Your task to perform on an android device: empty trash in the gmail app Image 0: 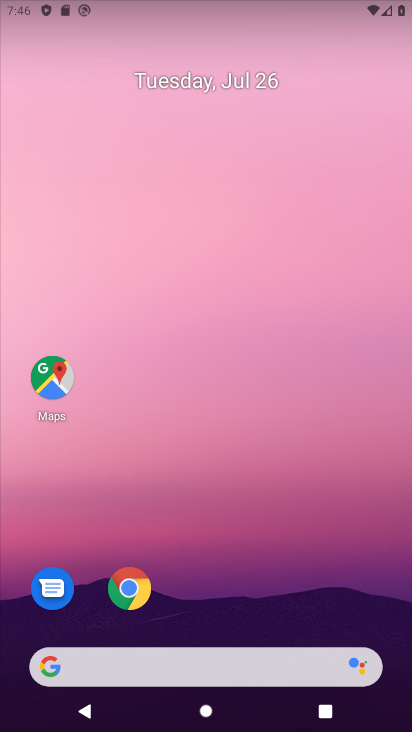
Step 0: drag from (171, 450) to (191, 97)
Your task to perform on an android device: empty trash in the gmail app Image 1: 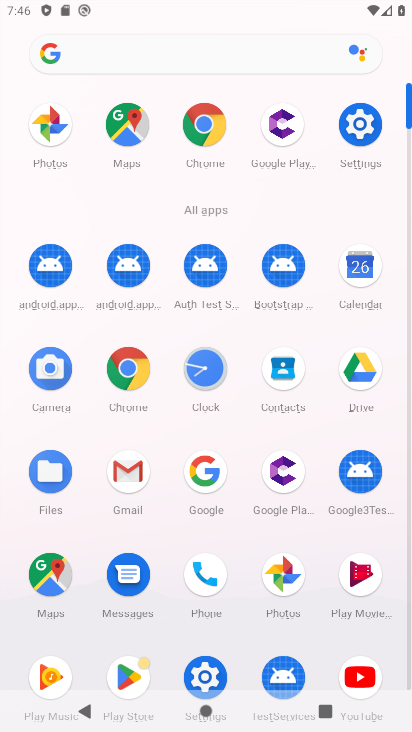
Step 1: click (127, 481)
Your task to perform on an android device: empty trash in the gmail app Image 2: 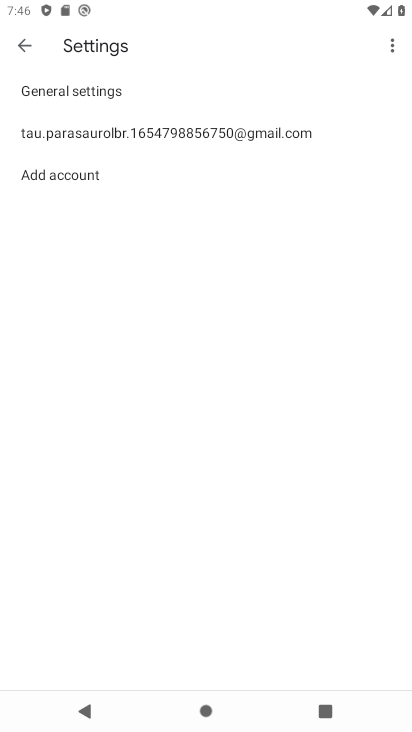
Step 2: click (18, 42)
Your task to perform on an android device: empty trash in the gmail app Image 3: 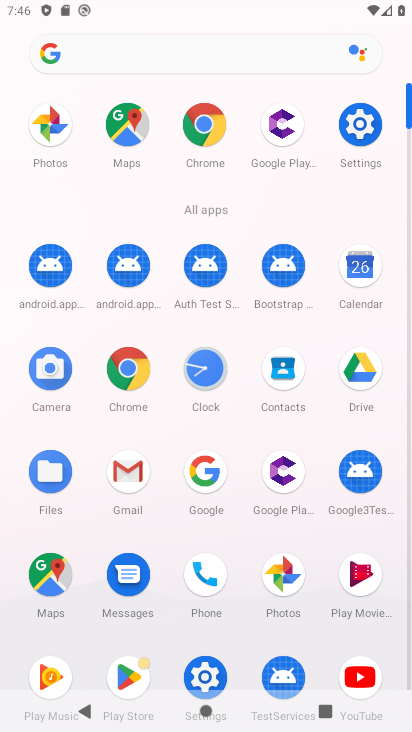
Step 3: click (124, 479)
Your task to perform on an android device: empty trash in the gmail app Image 4: 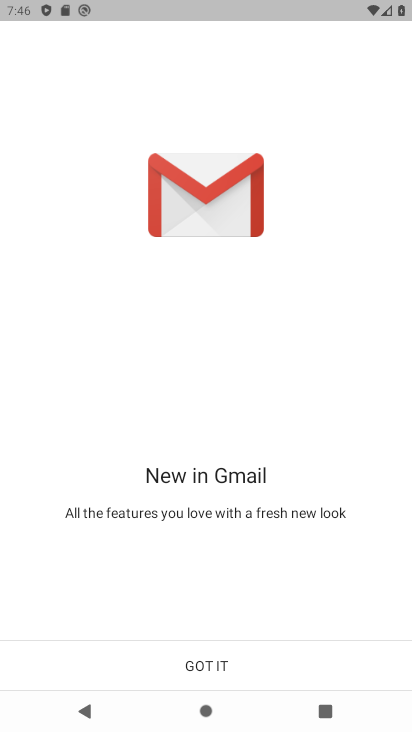
Step 4: click (200, 668)
Your task to perform on an android device: empty trash in the gmail app Image 5: 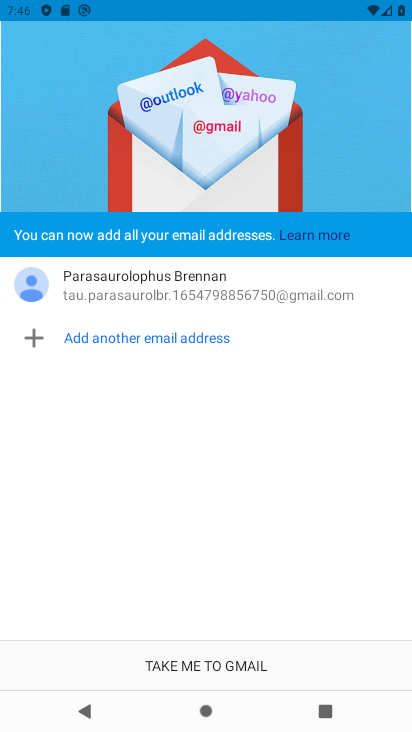
Step 5: click (200, 668)
Your task to perform on an android device: empty trash in the gmail app Image 6: 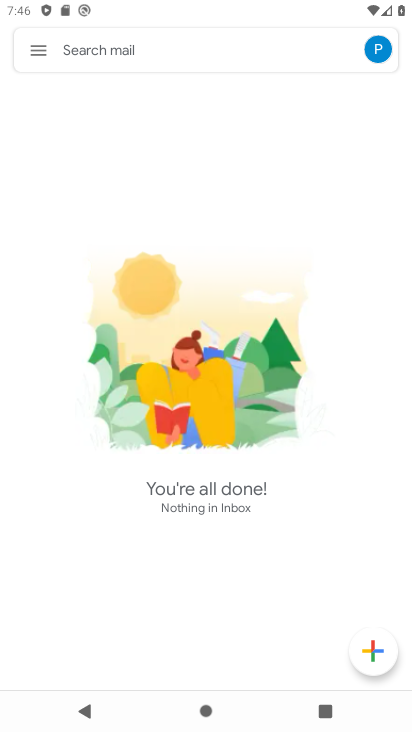
Step 6: click (41, 55)
Your task to perform on an android device: empty trash in the gmail app Image 7: 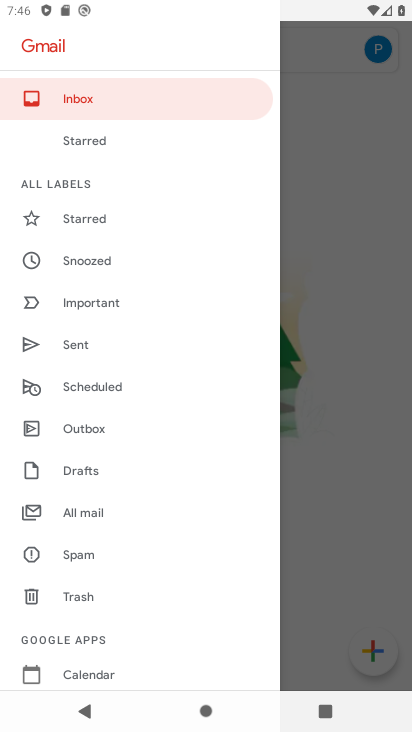
Step 7: click (74, 592)
Your task to perform on an android device: empty trash in the gmail app Image 8: 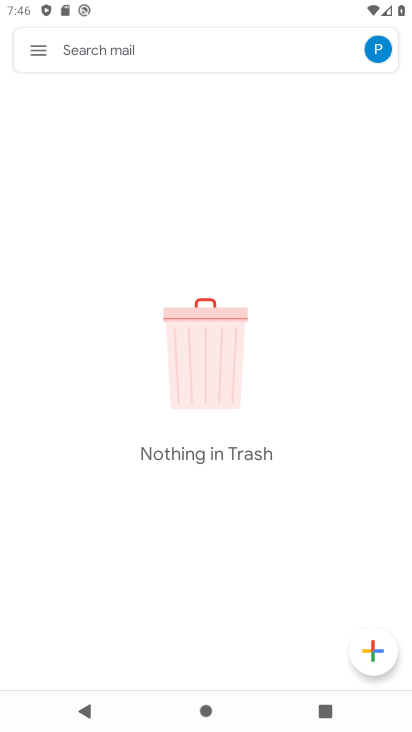
Step 8: task complete